Your task to perform on an android device: stop showing notifications on the lock screen Image 0: 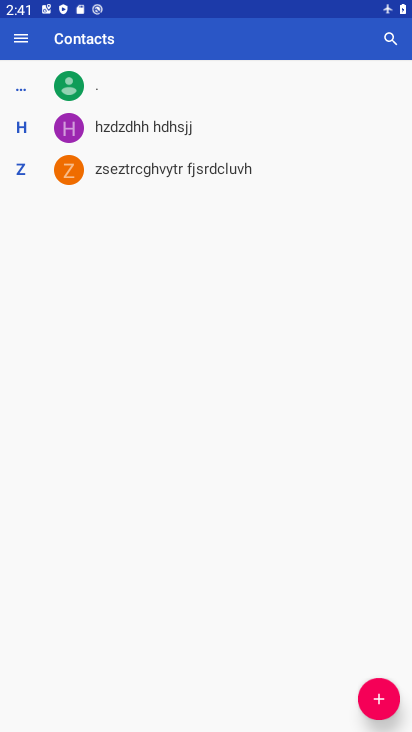
Step 0: press home button
Your task to perform on an android device: stop showing notifications on the lock screen Image 1: 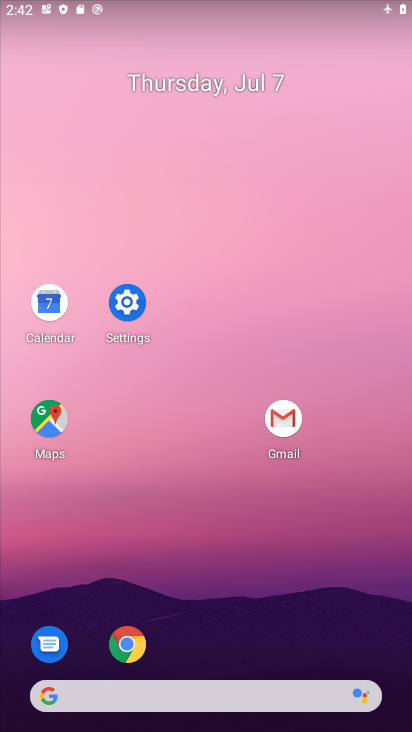
Step 1: drag from (392, 633) to (344, 53)
Your task to perform on an android device: stop showing notifications on the lock screen Image 2: 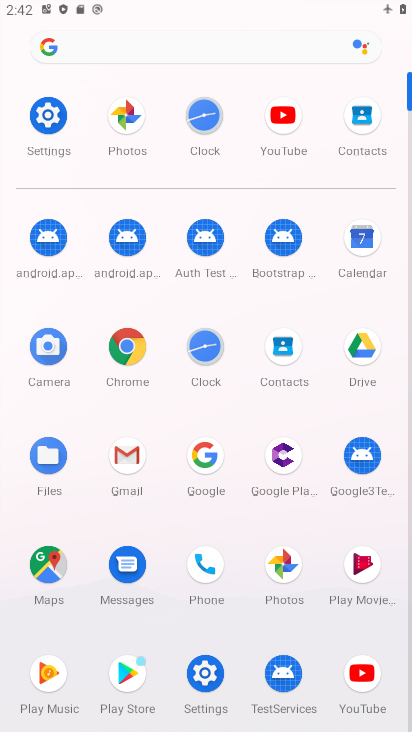
Step 2: click (41, 105)
Your task to perform on an android device: stop showing notifications on the lock screen Image 3: 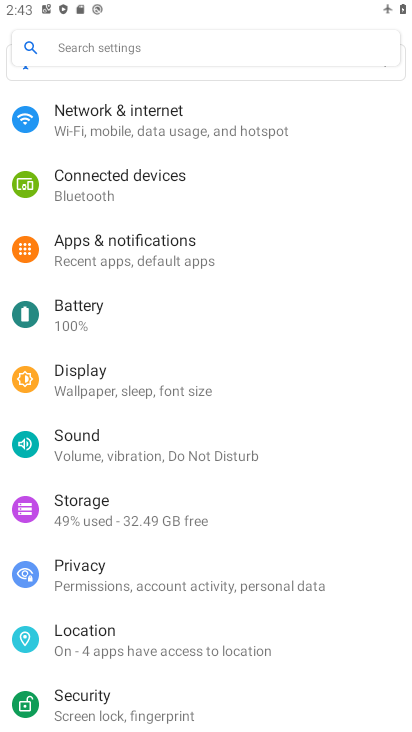
Step 3: click (110, 251)
Your task to perform on an android device: stop showing notifications on the lock screen Image 4: 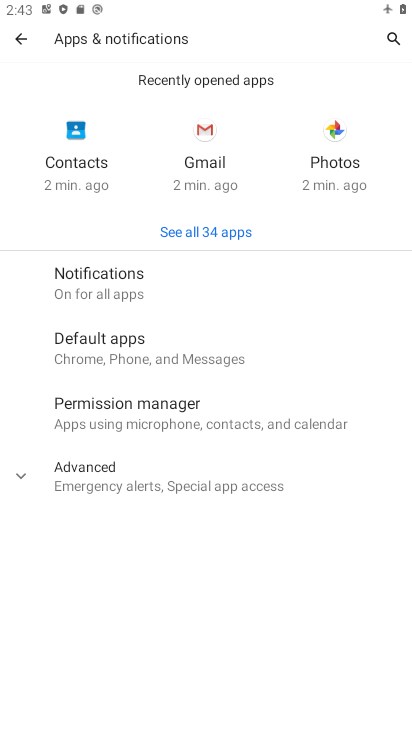
Step 4: click (88, 286)
Your task to perform on an android device: stop showing notifications on the lock screen Image 5: 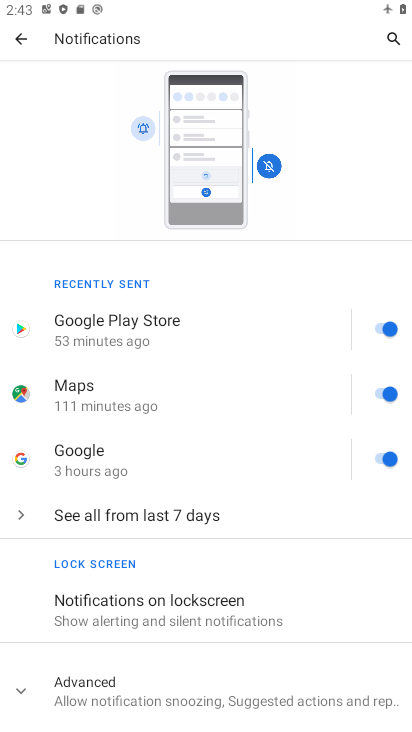
Step 5: click (112, 590)
Your task to perform on an android device: stop showing notifications on the lock screen Image 6: 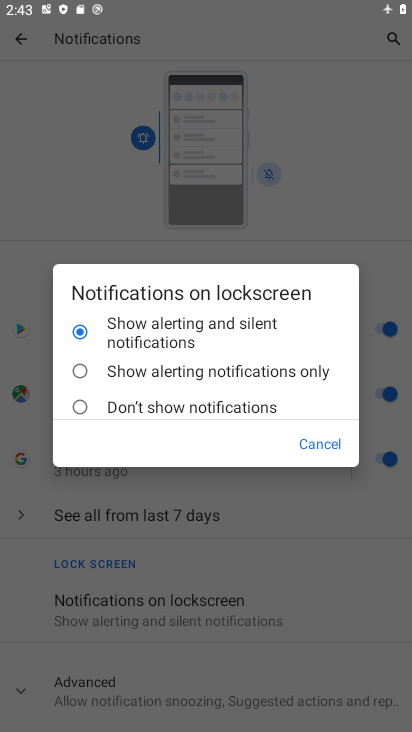
Step 6: click (94, 402)
Your task to perform on an android device: stop showing notifications on the lock screen Image 7: 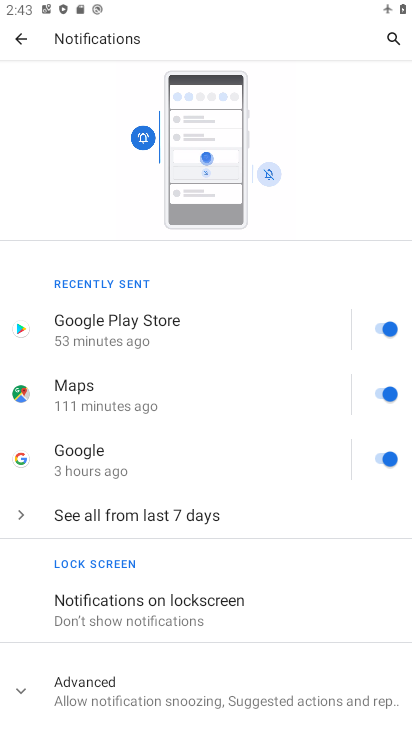
Step 7: task complete